Your task to perform on an android device: change the clock display to show seconds Image 0: 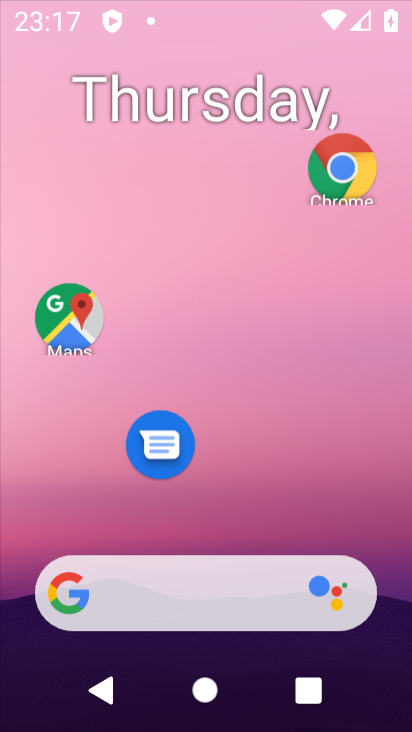
Step 0: click (247, 0)
Your task to perform on an android device: change the clock display to show seconds Image 1: 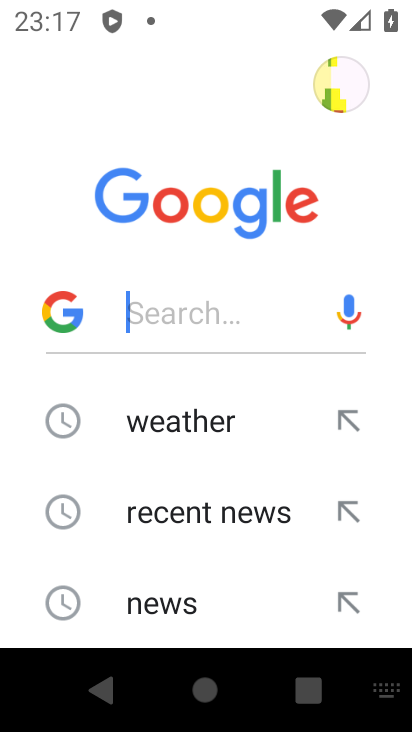
Step 1: drag from (269, 631) to (230, 3)
Your task to perform on an android device: change the clock display to show seconds Image 2: 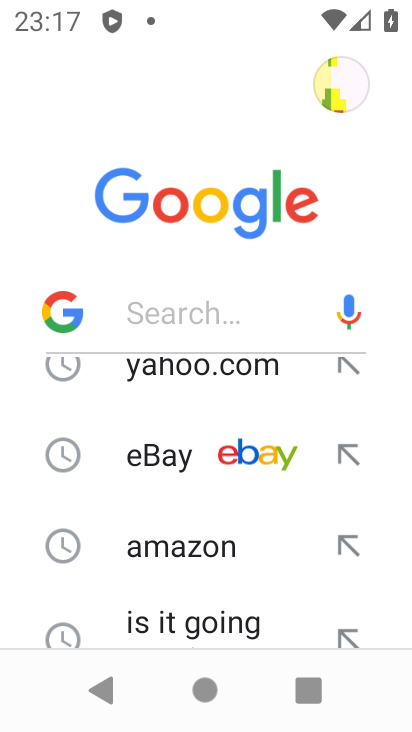
Step 2: press home button
Your task to perform on an android device: change the clock display to show seconds Image 3: 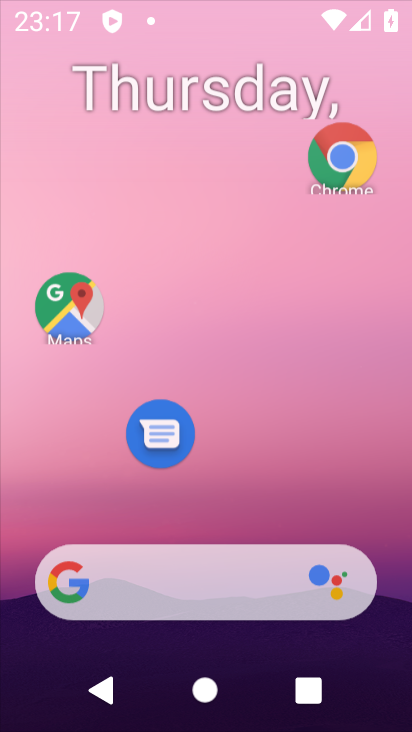
Step 3: drag from (211, 490) to (264, 141)
Your task to perform on an android device: change the clock display to show seconds Image 4: 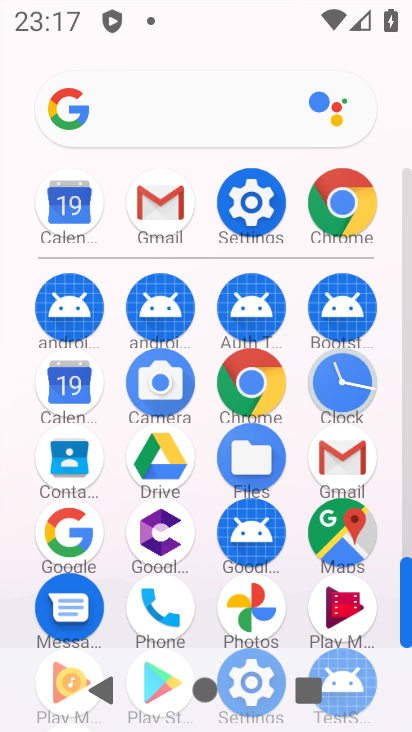
Step 4: click (343, 391)
Your task to perform on an android device: change the clock display to show seconds Image 5: 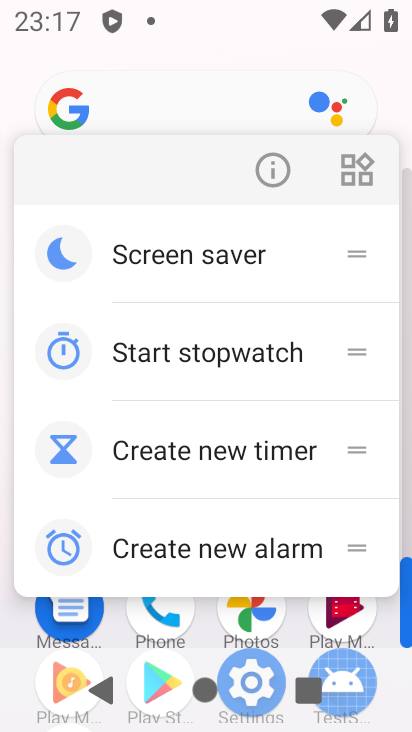
Step 5: click (261, 180)
Your task to perform on an android device: change the clock display to show seconds Image 6: 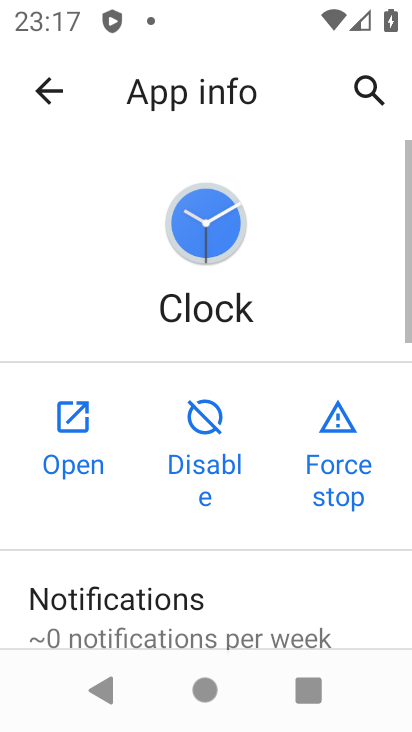
Step 6: click (67, 415)
Your task to perform on an android device: change the clock display to show seconds Image 7: 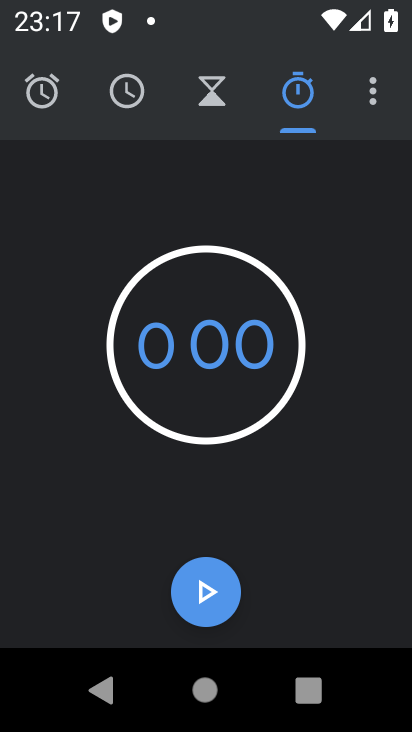
Step 7: click (372, 80)
Your task to perform on an android device: change the clock display to show seconds Image 8: 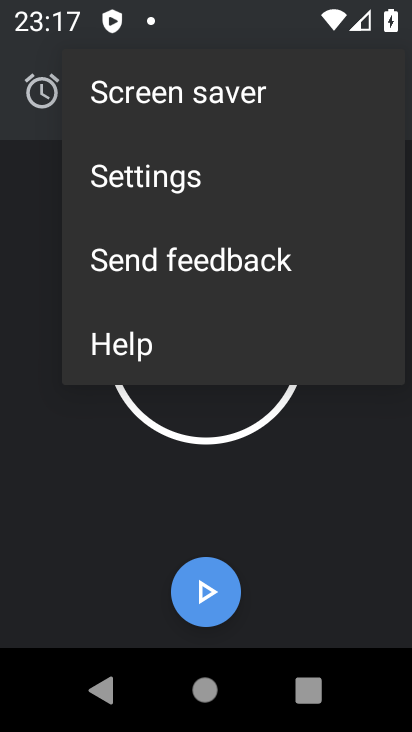
Step 8: click (179, 192)
Your task to perform on an android device: change the clock display to show seconds Image 9: 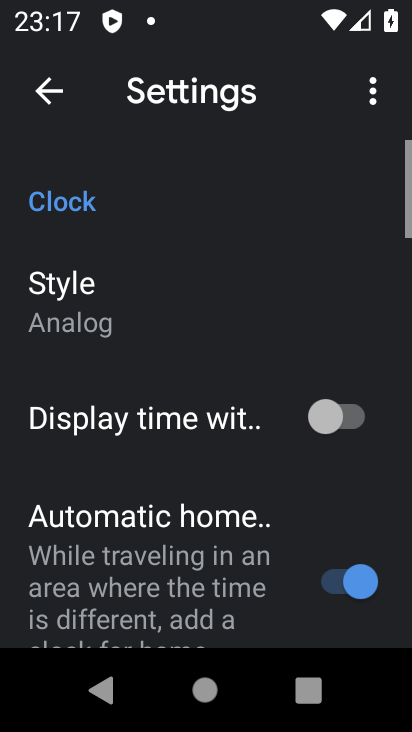
Step 9: click (317, 414)
Your task to perform on an android device: change the clock display to show seconds Image 10: 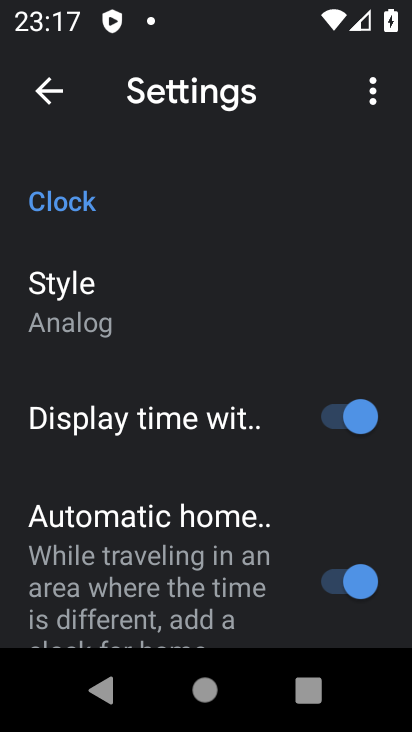
Step 10: task complete